Your task to perform on an android device: search for starred emails in the gmail app Image 0: 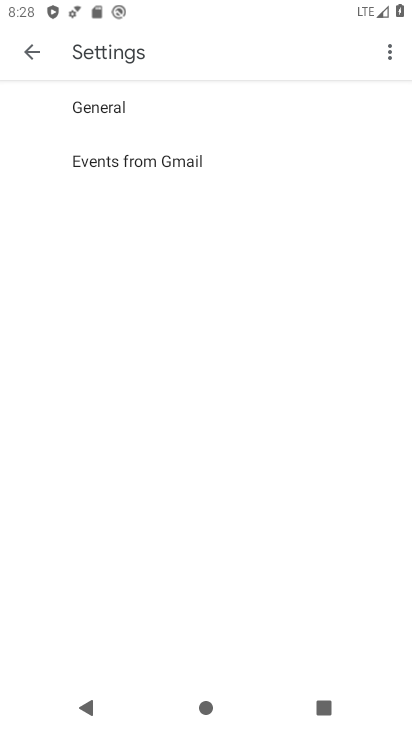
Step 0: press home button
Your task to perform on an android device: search for starred emails in the gmail app Image 1: 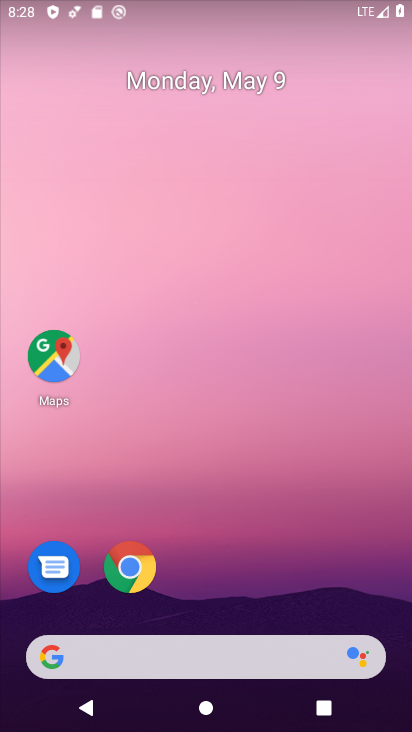
Step 1: drag from (308, 607) to (259, 174)
Your task to perform on an android device: search for starred emails in the gmail app Image 2: 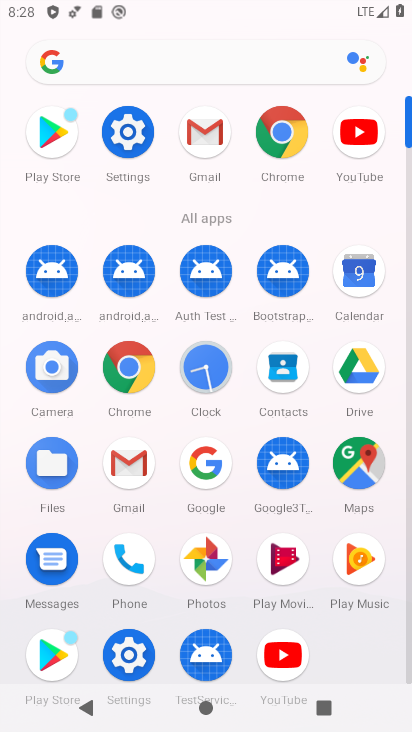
Step 2: click (205, 129)
Your task to perform on an android device: search for starred emails in the gmail app Image 3: 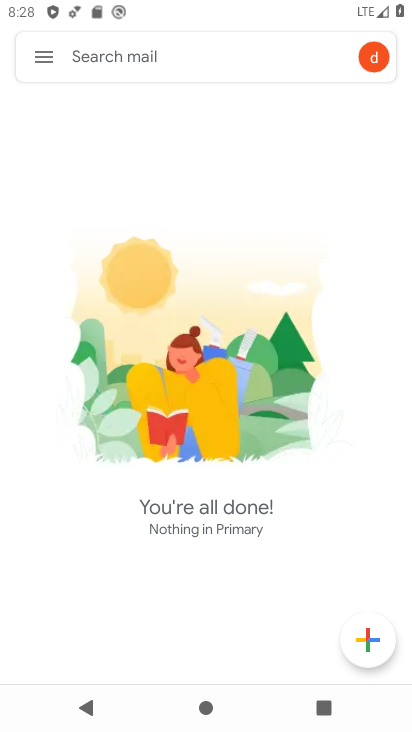
Step 3: click (46, 57)
Your task to perform on an android device: search for starred emails in the gmail app Image 4: 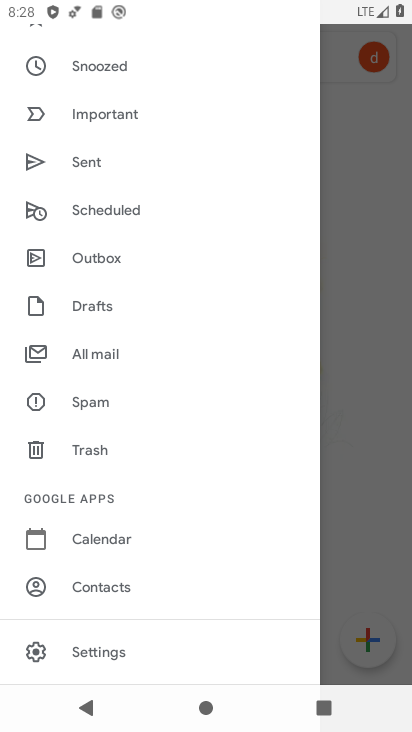
Step 4: drag from (118, 513) to (83, 564)
Your task to perform on an android device: search for starred emails in the gmail app Image 5: 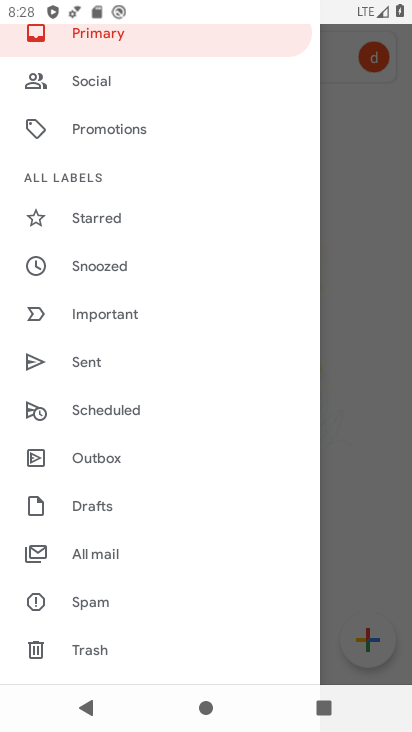
Step 5: click (95, 213)
Your task to perform on an android device: search for starred emails in the gmail app Image 6: 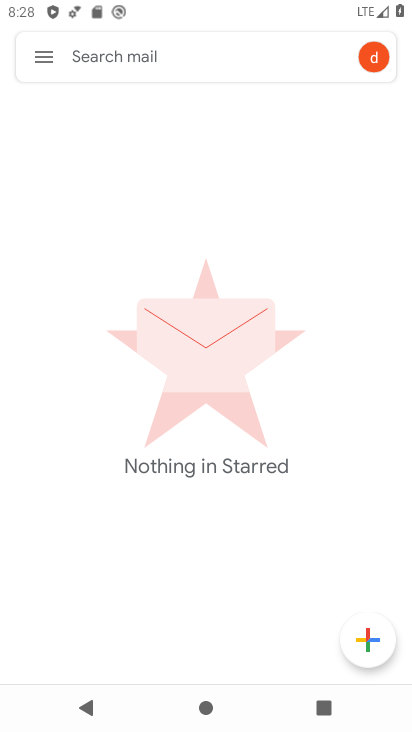
Step 6: task complete